Your task to perform on an android device: Open notification settings Image 0: 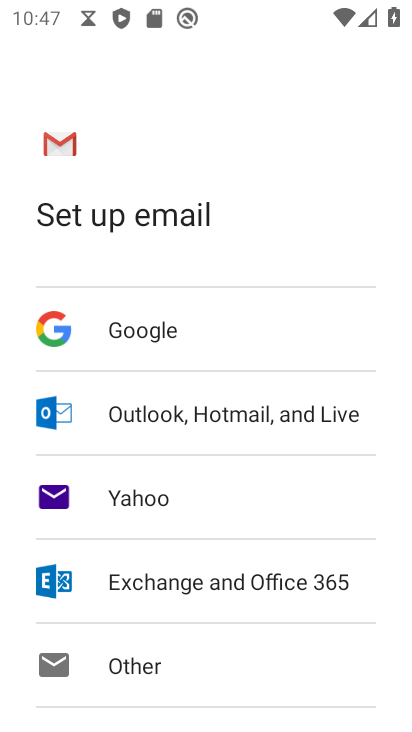
Step 0: press home button
Your task to perform on an android device: Open notification settings Image 1: 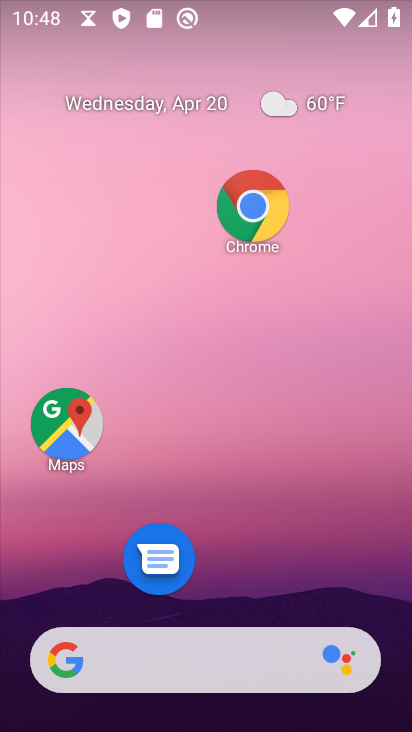
Step 1: drag from (235, 696) to (341, 1)
Your task to perform on an android device: Open notification settings Image 2: 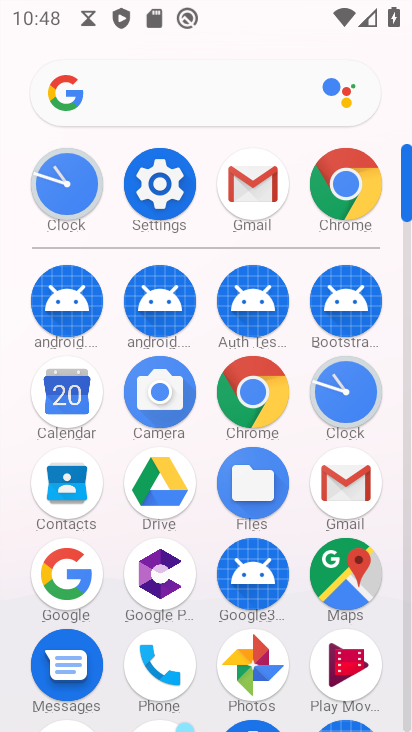
Step 2: drag from (195, 449) to (225, 136)
Your task to perform on an android device: Open notification settings Image 3: 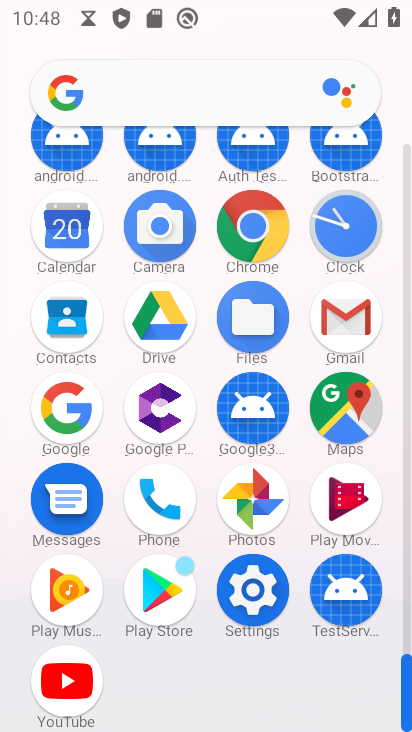
Step 3: click (248, 593)
Your task to perform on an android device: Open notification settings Image 4: 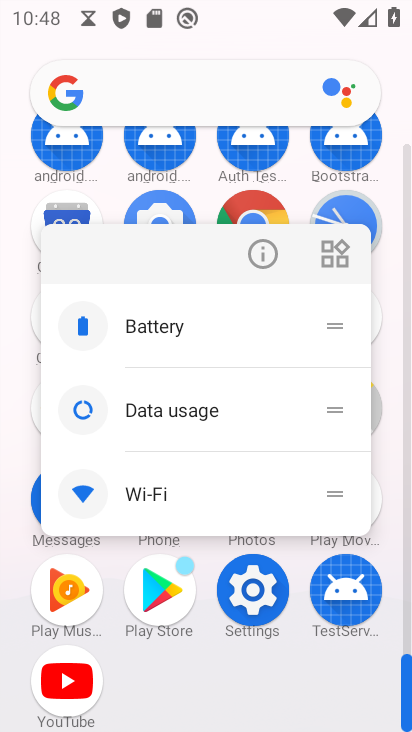
Step 4: click (248, 593)
Your task to perform on an android device: Open notification settings Image 5: 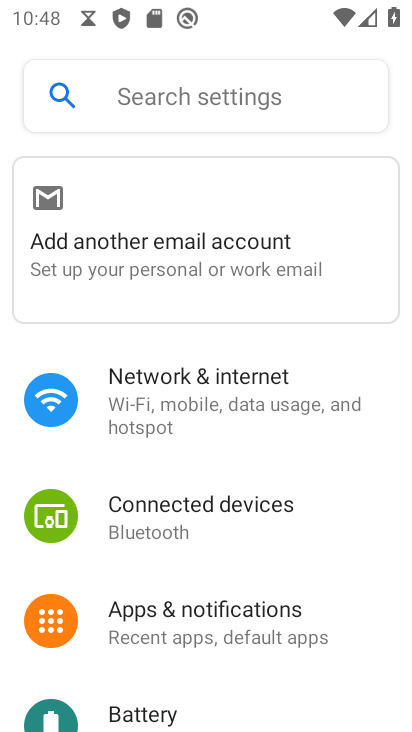
Step 5: click (254, 623)
Your task to perform on an android device: Open notification settings Image 6: 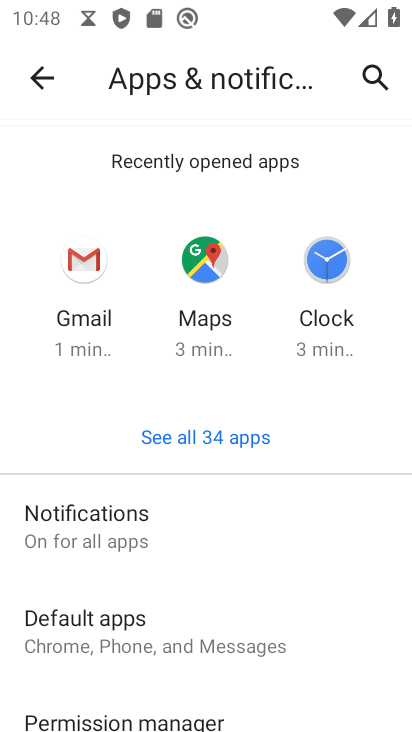
Step 6: drag from (234, 707) to (223, 244)
Your task to perform on an android device: Open notification settings Image 7: 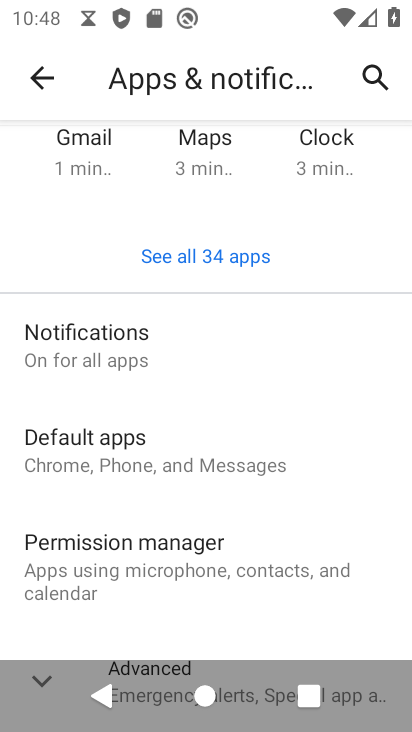
Step 7: drag from (211, 608) to (261, 287)
Your task to perform on an android device: Open notification settings Image 8: 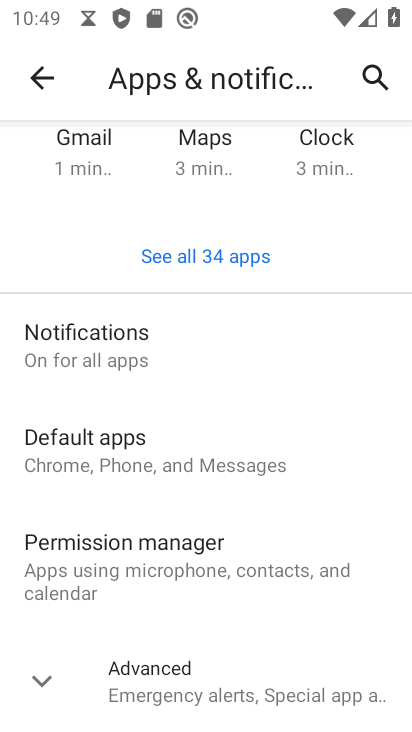
Step 8: drag from (190, 607) to (198, 309)
Your task to perform on an android device: Open notification settings Image 9: 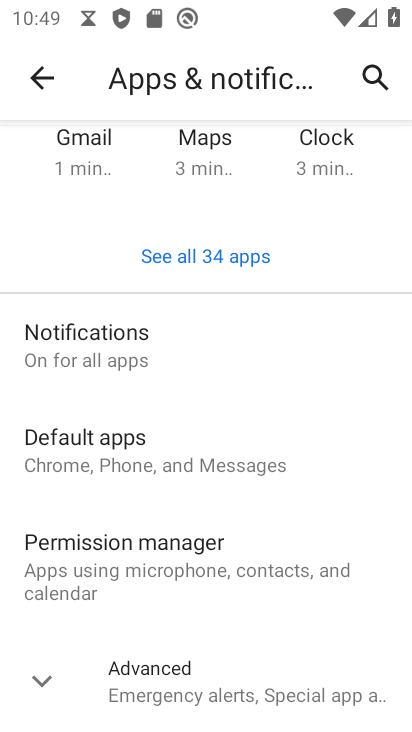
Step 9: click (126, 342)
Your task to perform on an android device: Open notification settings Image 10: 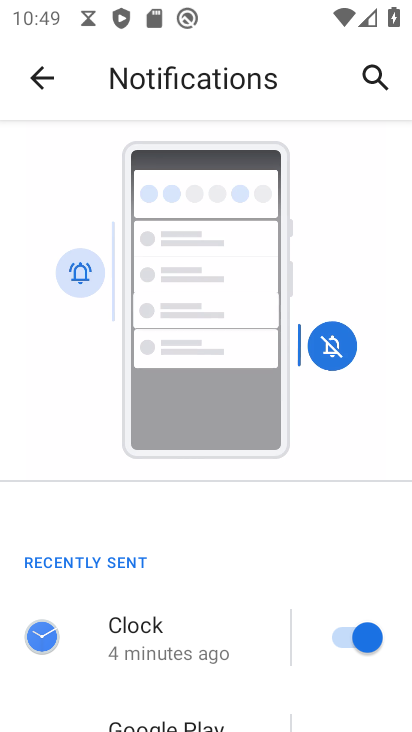
Step 10: task complete